Your task to perform on an android device: turn on the 12-hour format for clock Image 0: 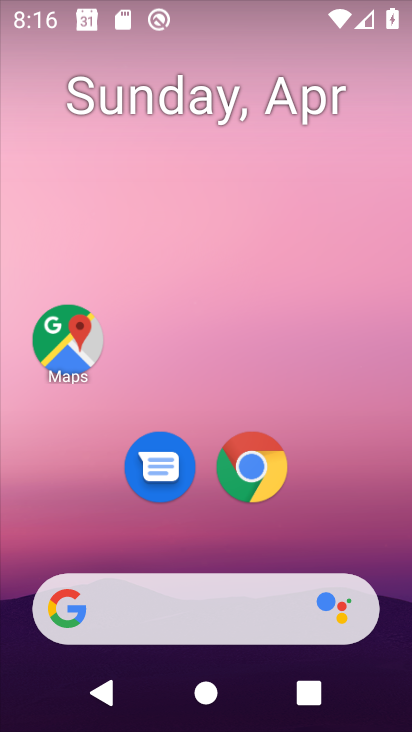
Step 0: drag from (312, 535) to (278, 82)
Your task to perform on an android device: turn on the 12-hour format for clock Image 1: 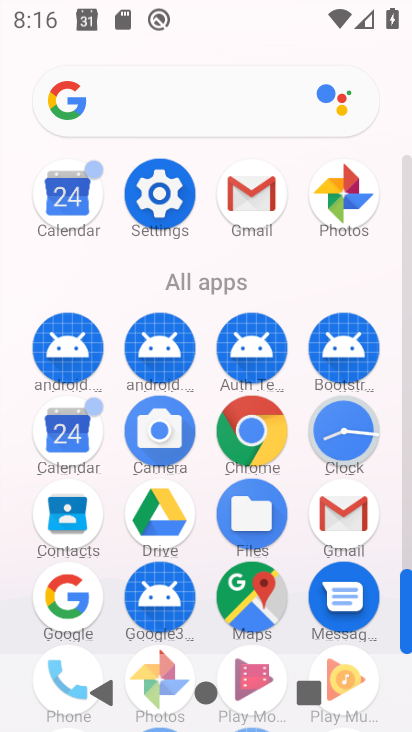
Step 1: click (335, 438)
Your task to perform on an android device: turn on the 12-hour format for clock Image 2: 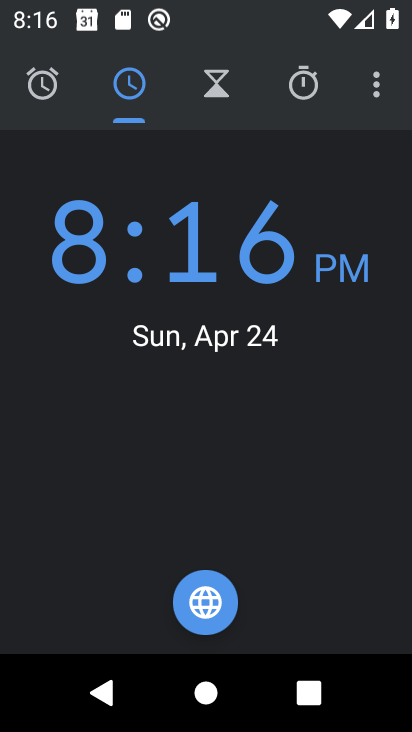
Step 2: click (355, 85)
Your task to perform on an android device: turn on the 12-hour format for clock Image 3: 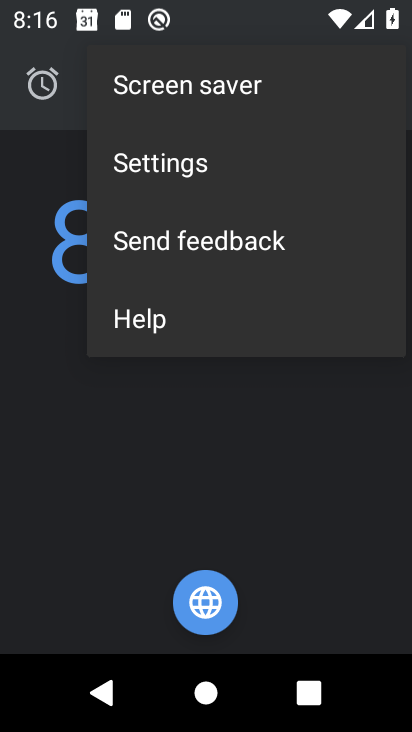
Step 3: click (218, 160)
Your task to perform on an android device: turn on the 12-hour format for clock Image 4: 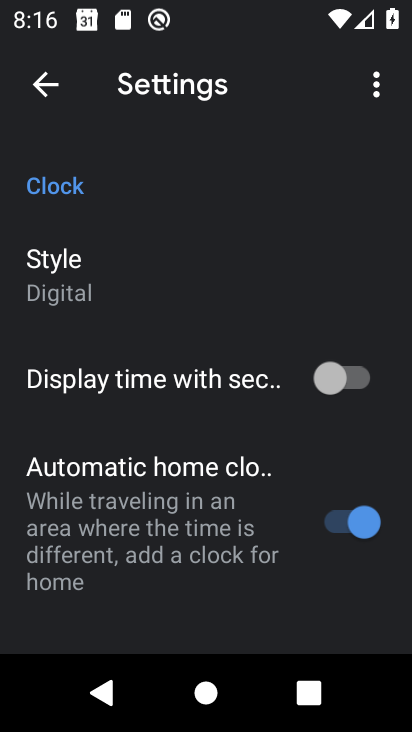
Step 4: drag from (163, 481) to (172, 312)
Your task to perform on an android device: turn on the 12-hour format for clock Image 5: 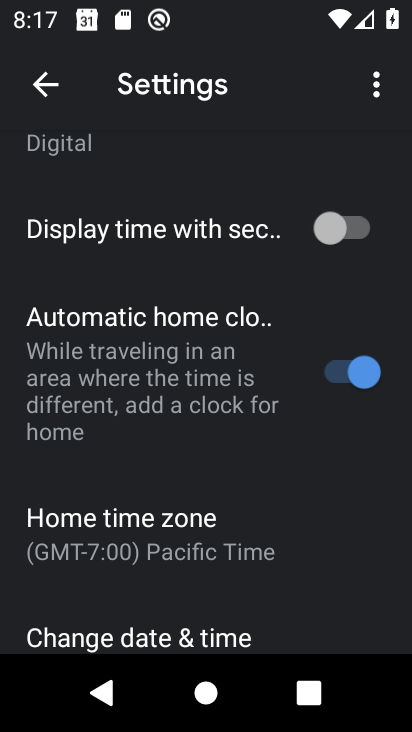
Step 5: drag from (210, 569) to (204, 424)
Your task to perform on an android device: turn on the 12-hour format for clock Image 6: 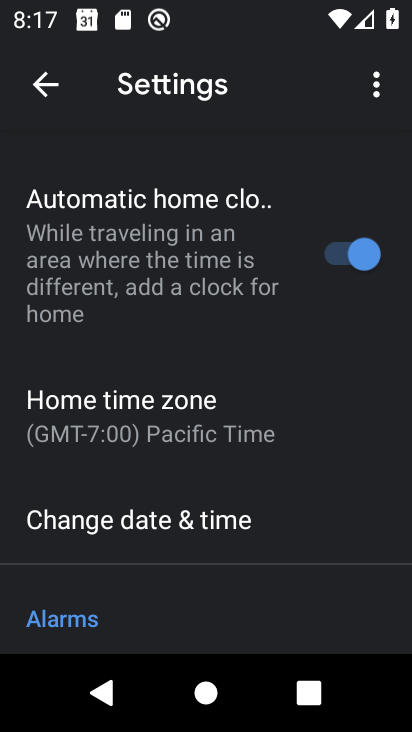
Step 6: click (185, 532)
Your task to perform on an android device: turn on the 12-hour format for clock Image 7: 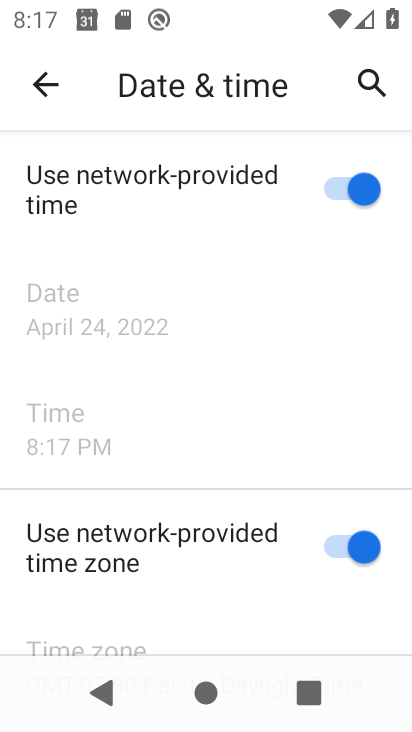
Step 7: task complete